Your task to perform on an android device: Search for Italian restaurants on Maps Image 0: 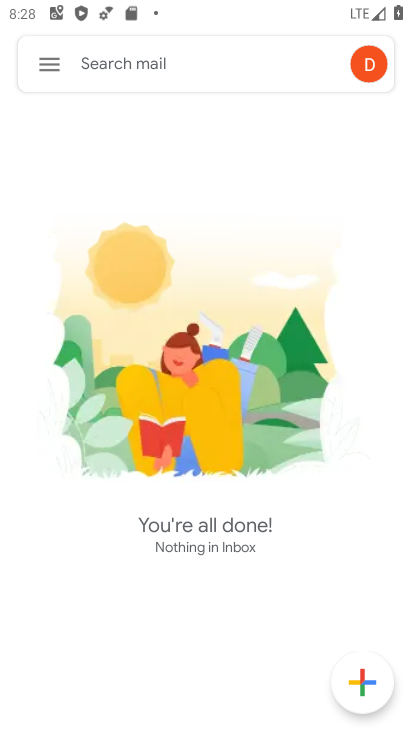
Step 0: press back button
Your task to perform on an android device: Search for Italian restaurants on Maps Image 1: 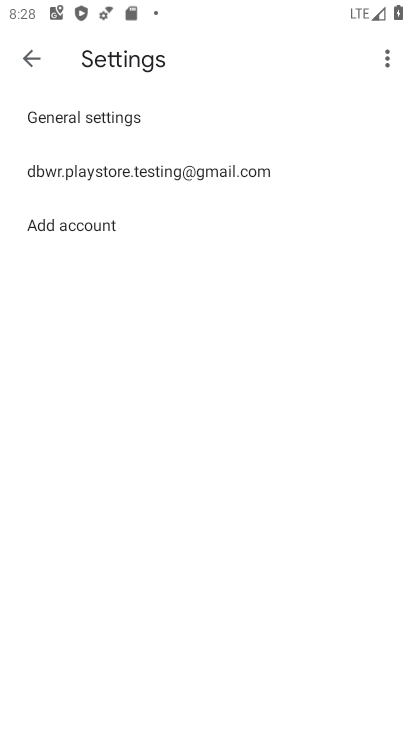
Step 1: press back button
Your task to perform on an android device: Search for Italian restaurants on Maps Image 2: 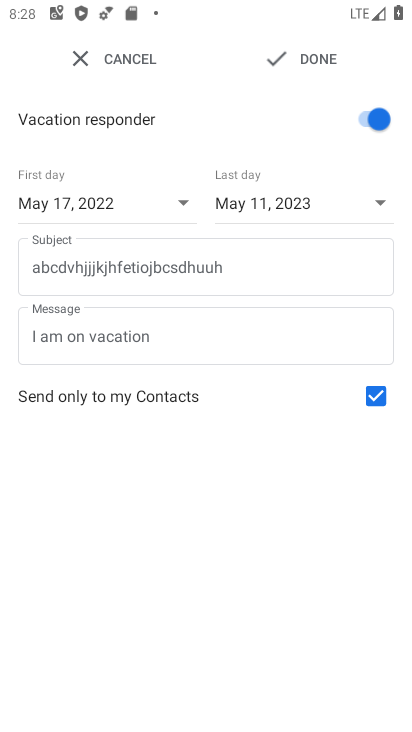
Step 2: press back button
Your task to perform on an android device: Search for Italian restaurants on Maps Image 3: 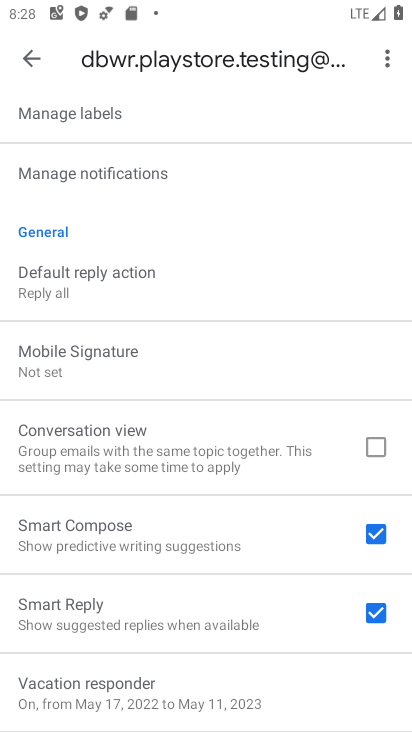
Step 3: press back button
Your task to perform on an android device: Search for Italian restaurants on Maps Image 4: 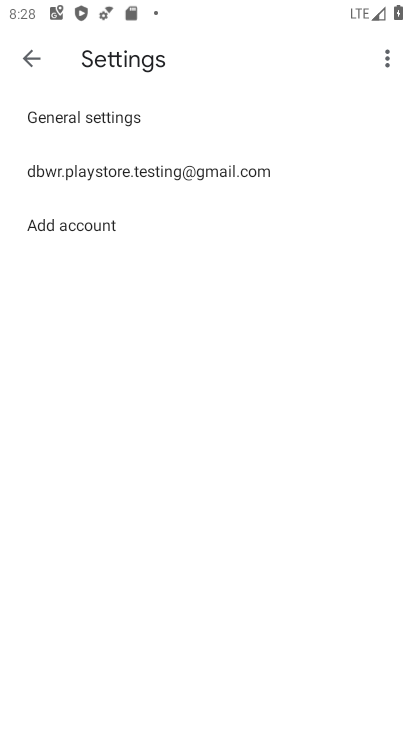
Step 4: press back button
Your task to perform on an android device: Search for Italian restaurants on Maps Image 5: 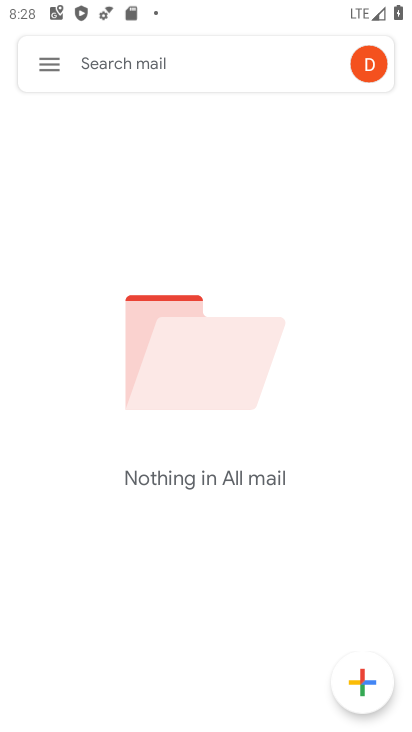
Step 5: press back button
Your task to perform on an android device: Search for Italian restaurants on Maps Image 6: 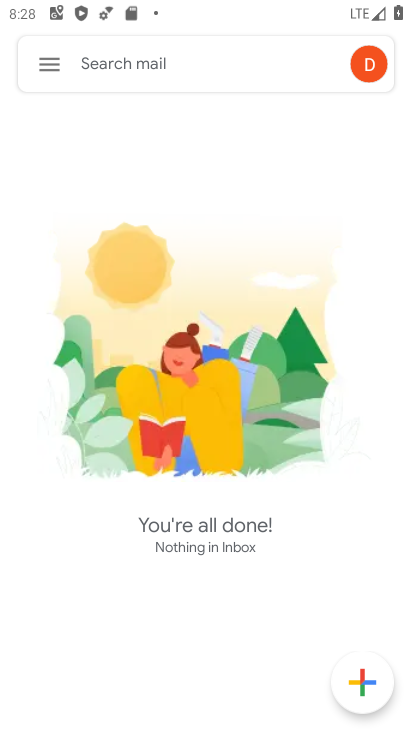
Step 6: press back button
Your task to perform on an android device: Search for Italian restaurants on Maps Image 7: 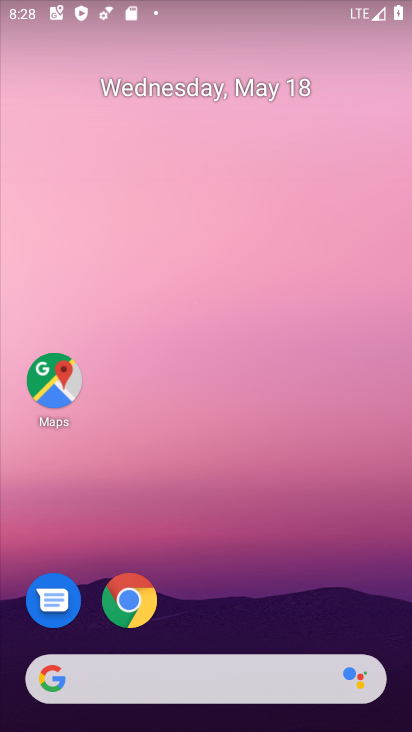
Step 7: click (56, 372)
Your task to perform on an android device: Search for Italian restaurants on Maps Image 8: 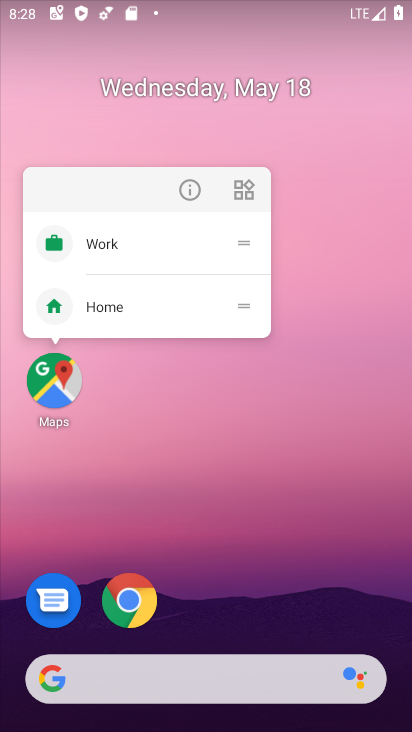
Step 8: click (59, 381)
Your task to perform on an android device: Search for Italian restaurants on Maps Image 9: 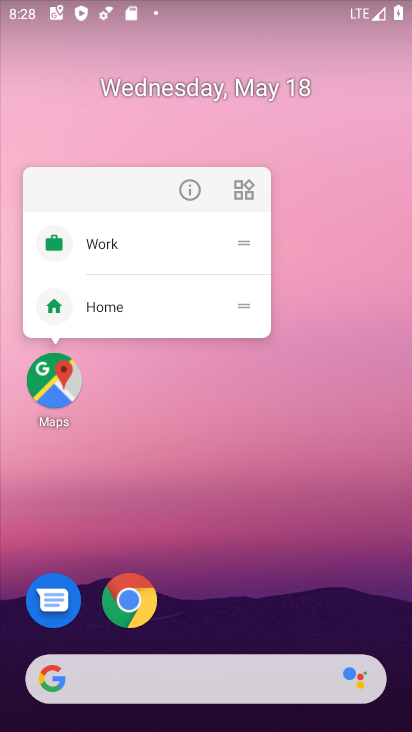
Step 9: click (50, 391)
Your task to perform on an android device: Search for Italian restaurants on Maps Image 10: 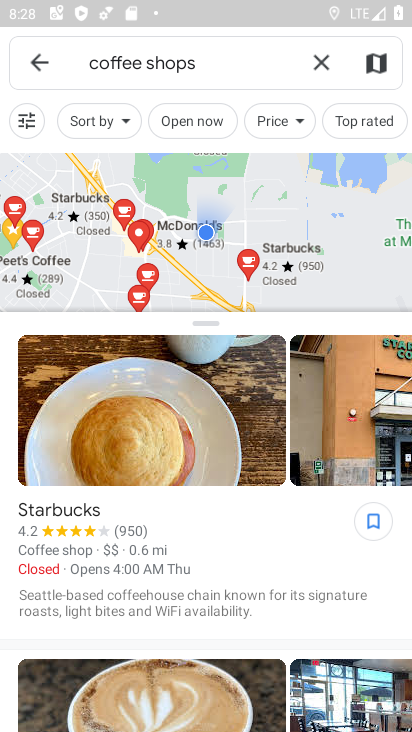
Step 10: click (318, 61)
Your task to perform on an android device: Search for Italian restaurants on Maps Image 11: 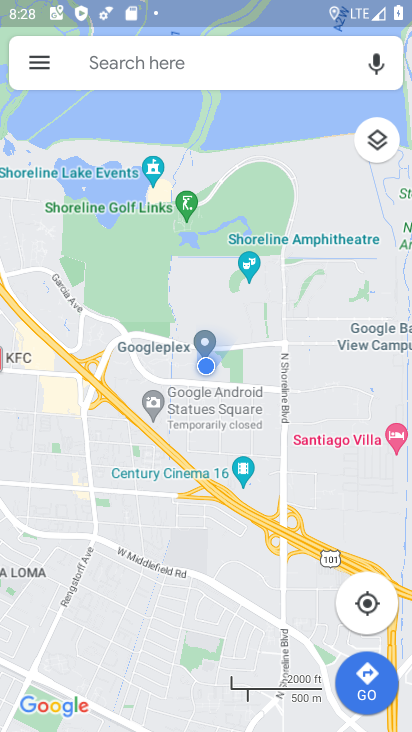
Step 11: click (188, 67)
Your task to perform on an android device: Search for Italian restaurants on Maps Image 12: 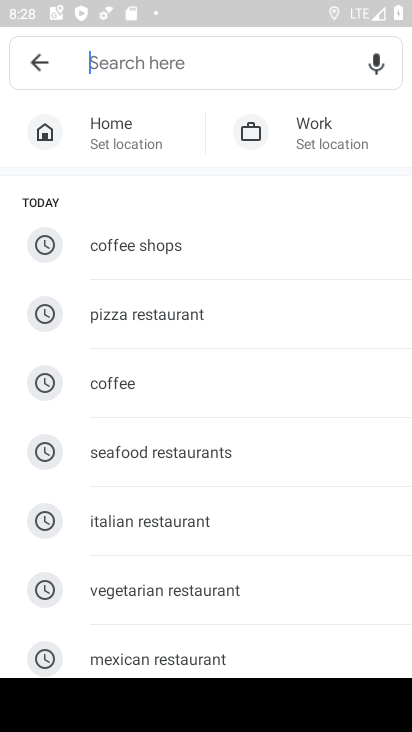
Step 12: click (149, 513)
Your task to perform on an android device: Search for Italian restaurants on Maps Image 13: 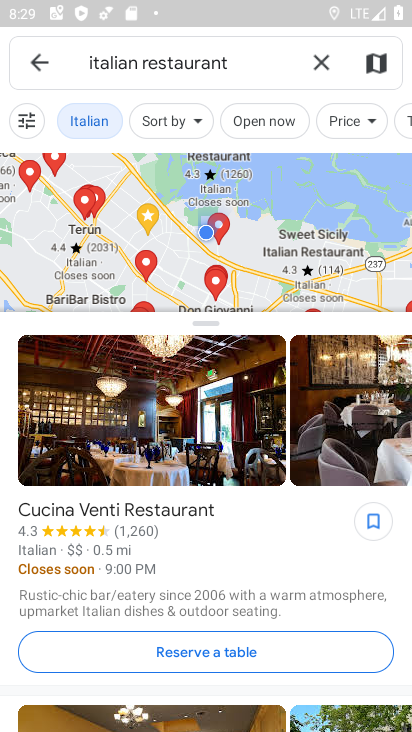
Step 13: task complete